Your task to perform on an android device: set the stopwatch Image 0: 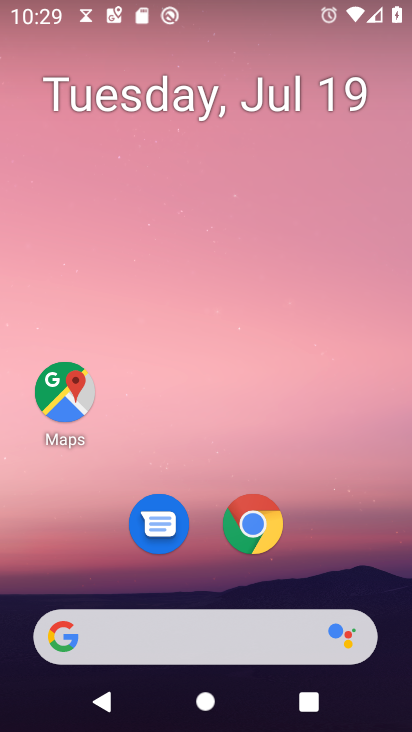
Step 0: drag from (223, 639) to (353, 80)
Your task to perform on an android device: set the stopwatch Image 1: 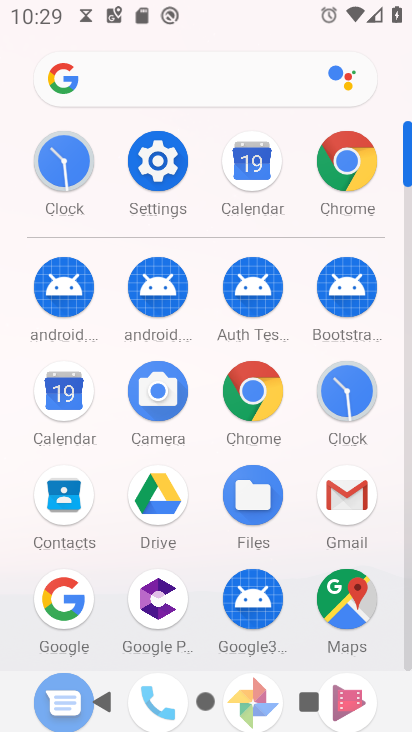
Step 1: click (355, 384)
Your task to perform on an android device: set the stopwatch Image 2: 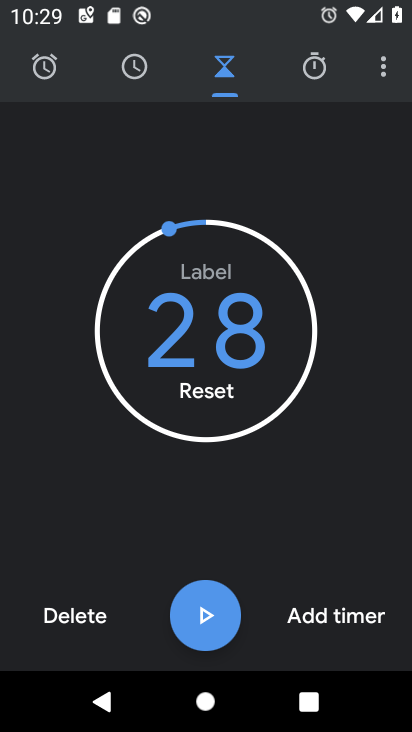
Step 2: click (304, 64)
Your task to perform on an android device: set the stopwatch Image 3: 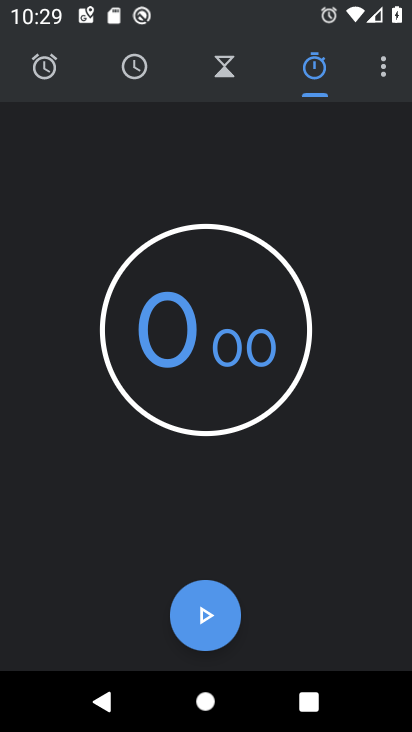
Step 3: click (201, 349)
Your task to perform on an android device: set the stopwatch Image 4: 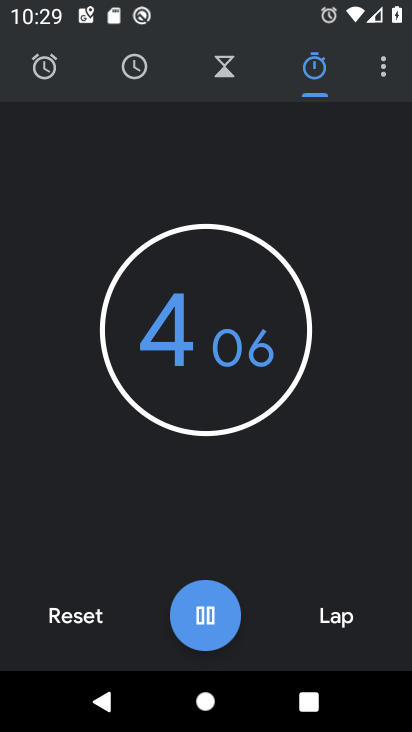
Step 4: click (201, 331)
Your task to perform on an android device: set the stopwatch Image 5: 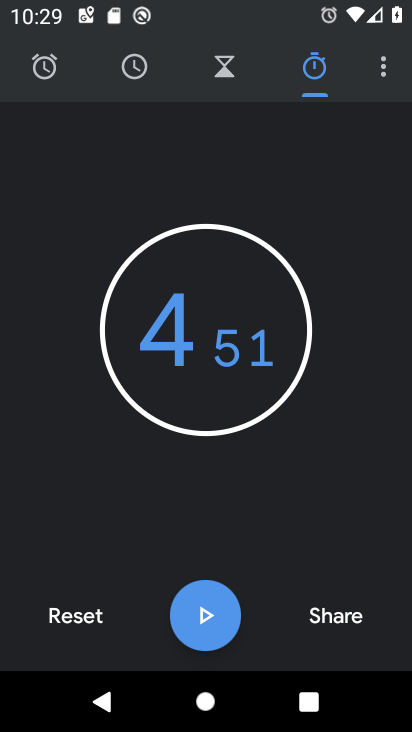
Step 5: task complete